Your task to perform on an android device: uninstall "Spotify" Image 0: 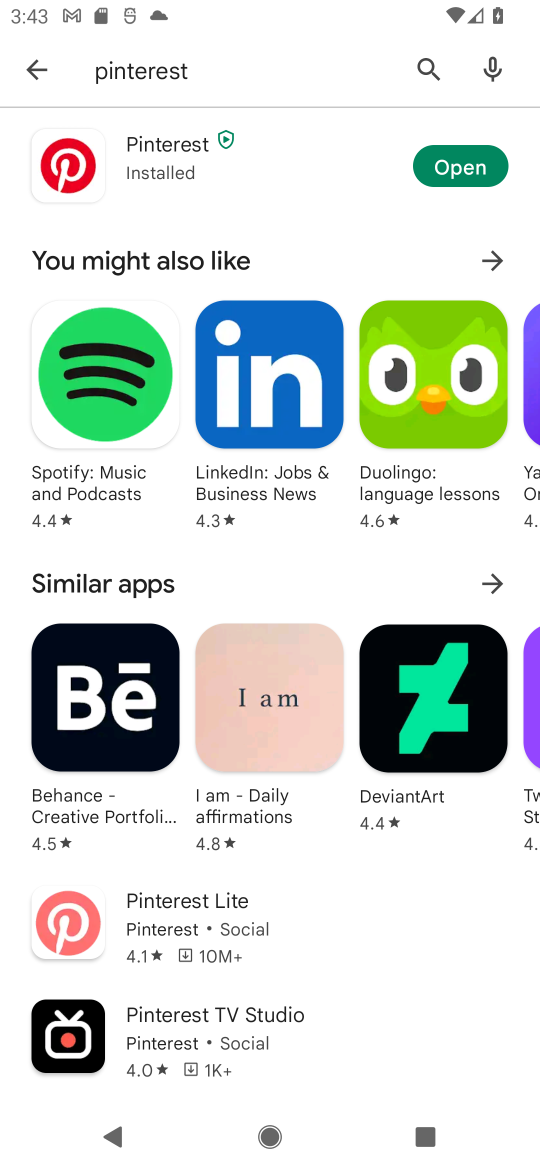
Step 0: press home button
Your task to perform on an android device: uninstall "Spotify" Image 1: 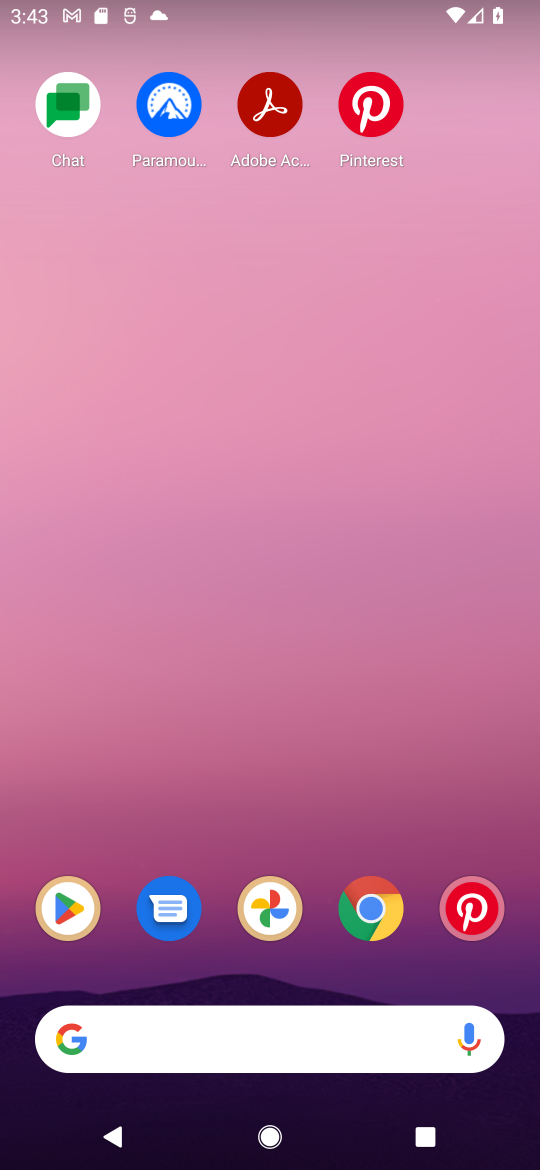
Step 1: click (67, 908)
Your task to perform on an android device: uninstall "Spotify" Image 2: 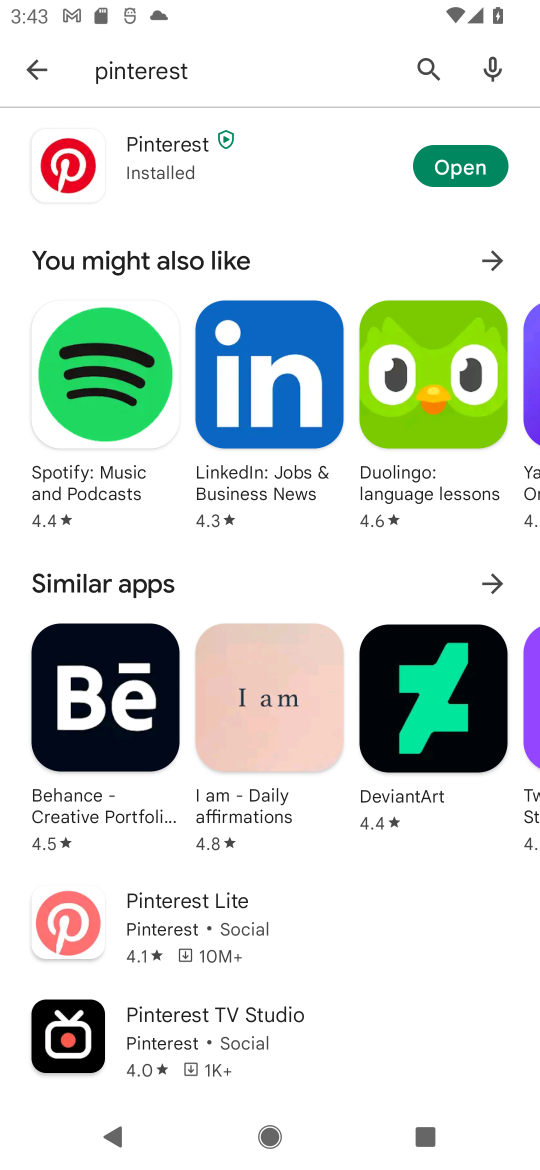
Step 2: click (428, 72)
Your task to perform on an android device: uninstall "Spotify" Image 3: 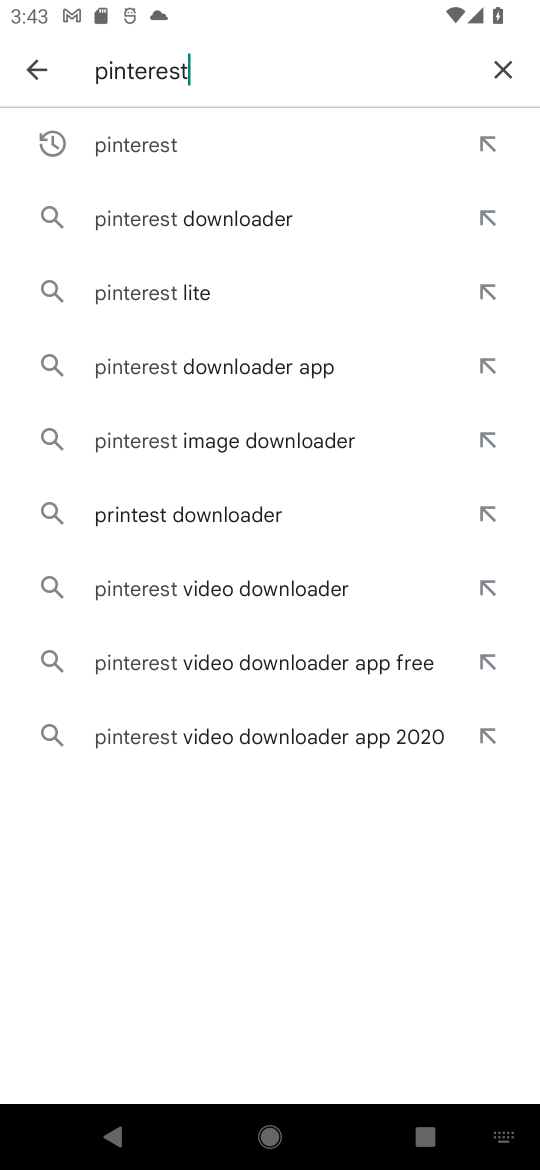
Step 3: click (499, 71)
Your task to perform on an android device: uninstall "Spotify" Image 4: 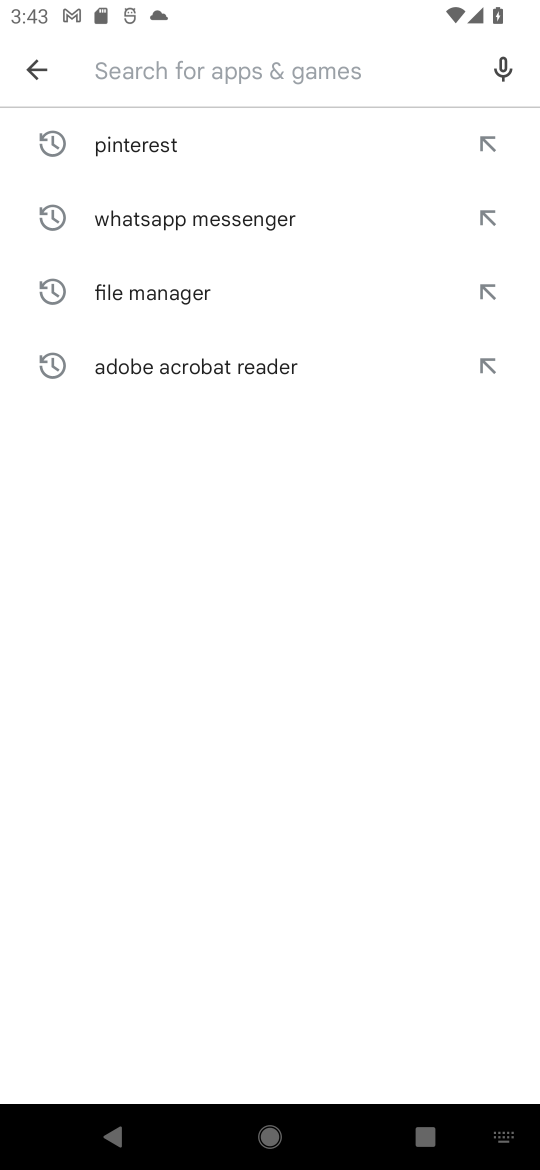
Step 4: type "Spotify"
Your task to perform on an android device: uninstall "Spotify" Image 5: 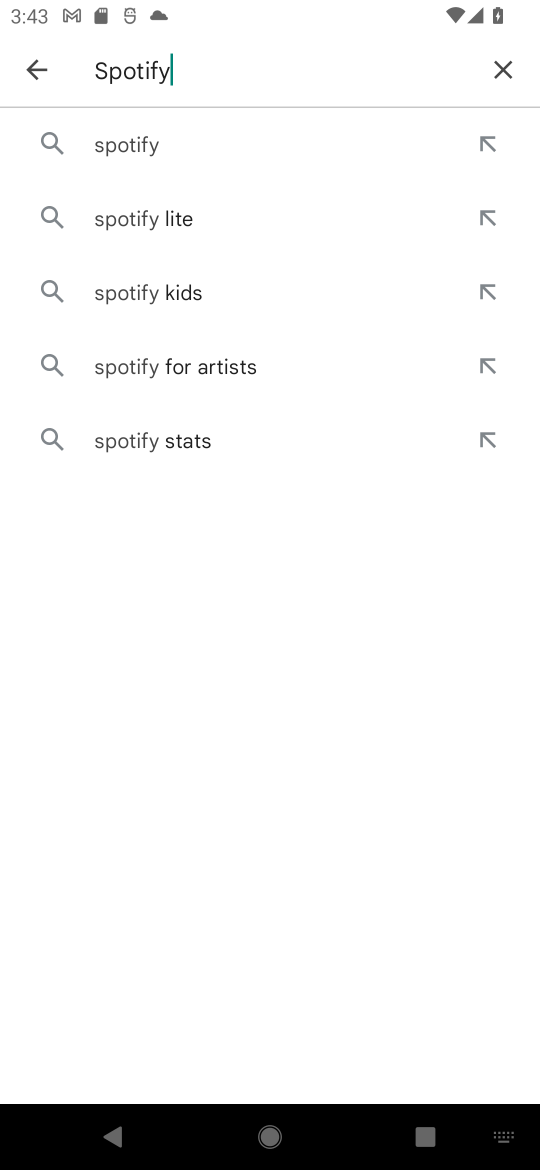
Step 5: click (174, 140)
Your task to perform on an android device: uninstall "Spotify" Image 6: 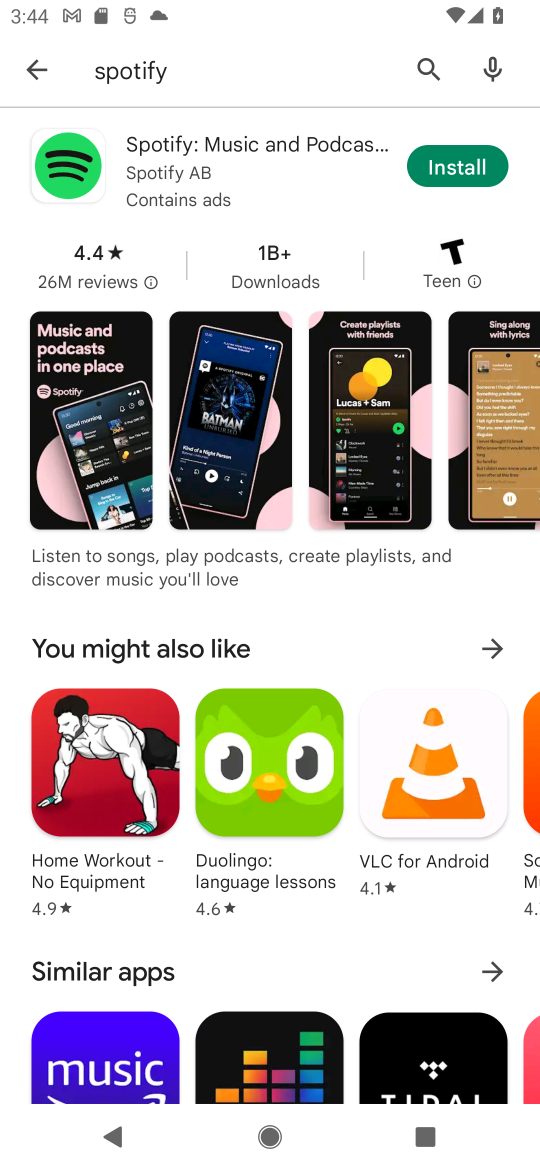
Step 6: task complete